Your task to perform on an android device: Show me popular games on the Play Store Image 0: 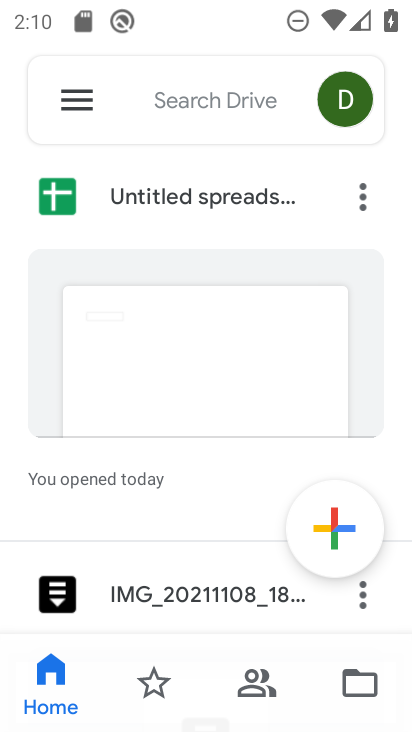
Step 0: press home button
Your task to perform on an android device: Show me popular games on the Play Store Image 1: 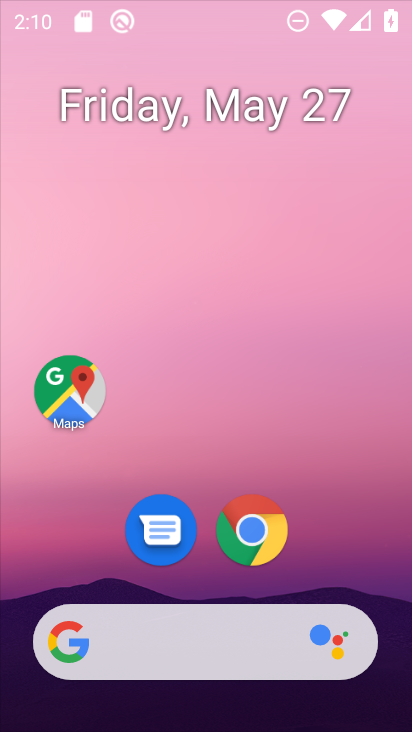
Step 1: drag from (134, 727) to (227, 254)
Your task to perform on an android device: Show me popular games on the Play Store Image 2: 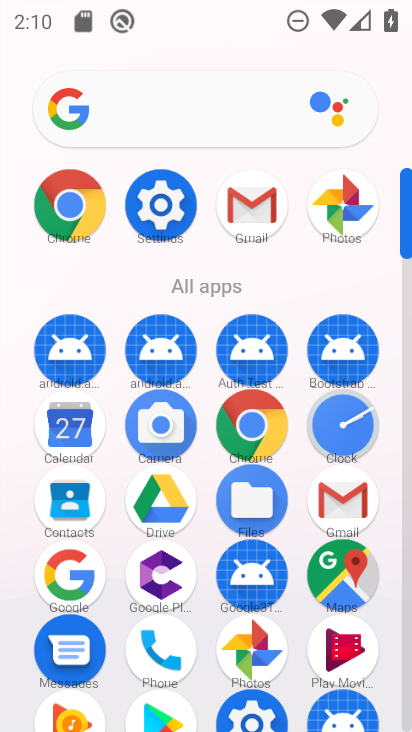
Step 2: drag from (199, 602) to (227, 251)
Your task to perform on an android device: Show me popular games on the Play Store Image 3: 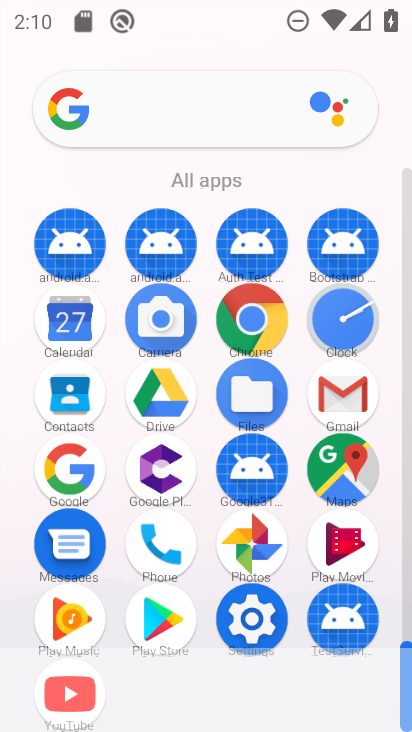
Step 3: click (174, 628)
Your task to perform on an android device: Show me popular games on the Play Store Image 4: 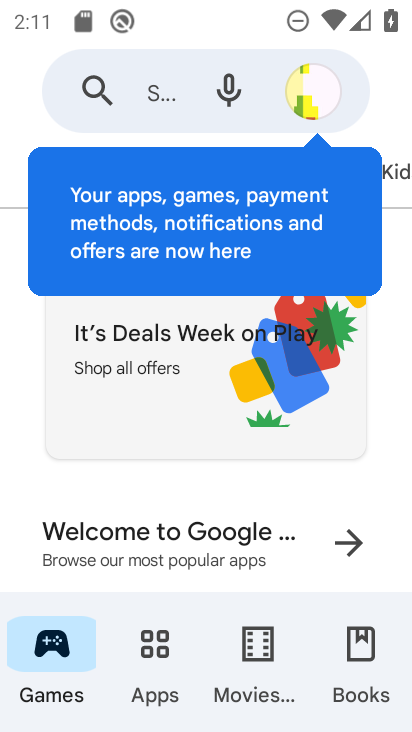
Step 4: click (388, 113)
Your task to perform on an android device: Show me popular games on the Play Store Image 5: 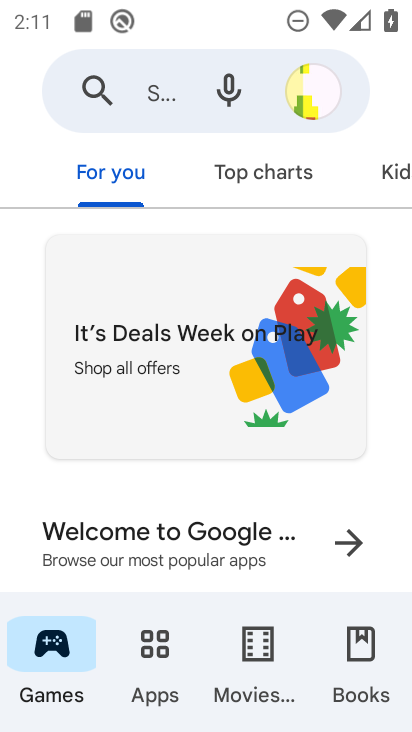
Step 5: click (286, 176)
Your task to perform on an android device: Show me popular games on the Play Store Image 6: 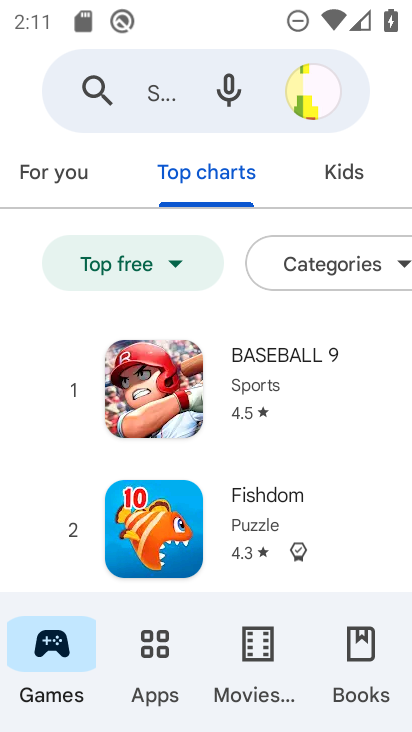
Step 6: task complete